Your task to perform on an android device: Open Youtube and go to the subscriptions tab Image 0: 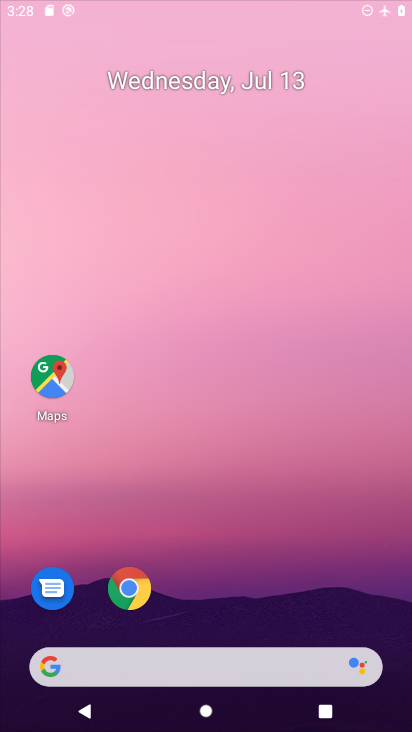
Step 0: drag from (221, 625) to (219, 167)
Your task to perform on an android device: Open Youtube and go to the subscriptions tab Image 1: 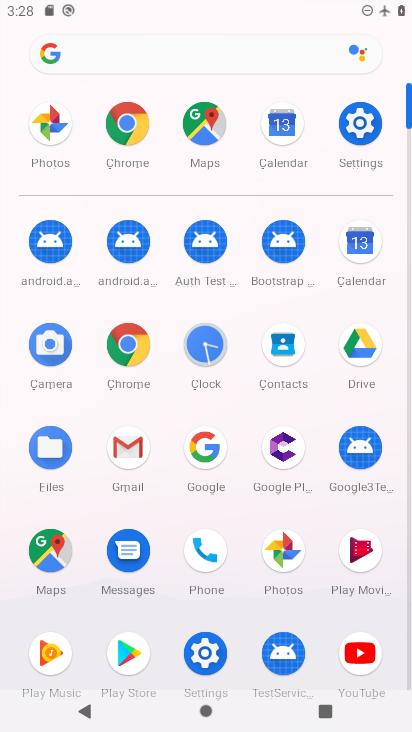
Step 1: click (379, 119)
Your task to perform on an android device: Open Youtube and go to the subscriptions tab Image 2: 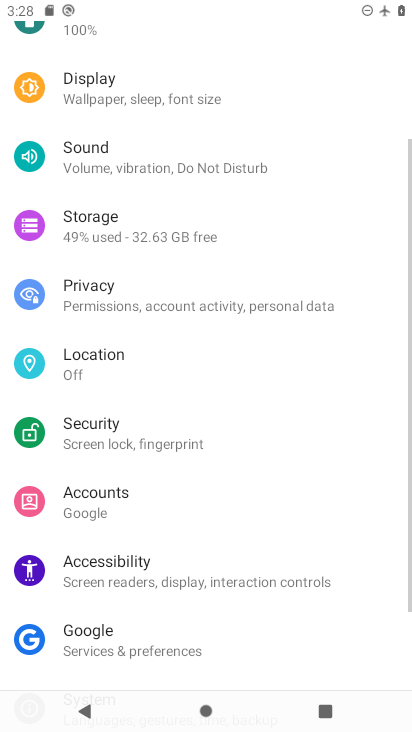
Step 2: press home button
Your task to perform on an android device: Open Youtube and go to the subscriptions tab Image 3: 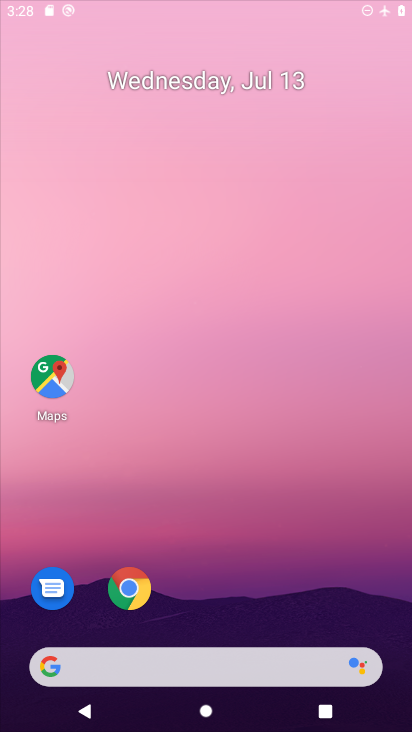
Step 3: press home button
Your task to perform on an android device: Open Youtube and go to the subscriptions tab Image 4: 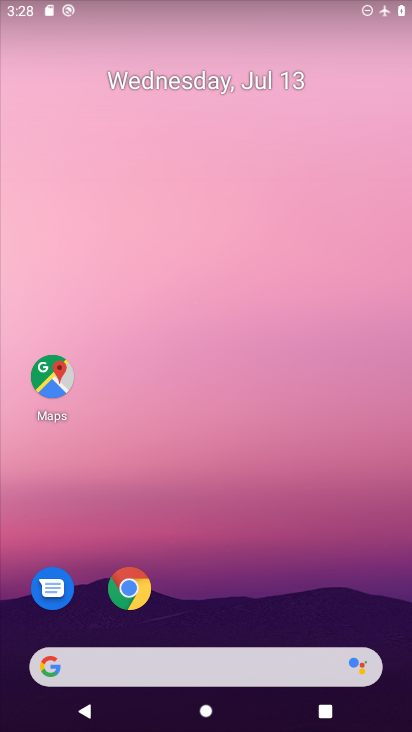
Step 4: drag from (205, 574) to (196, 30)
Your task to perform on an android device: Open Youtube and go to the subscriptions tab Image 5: 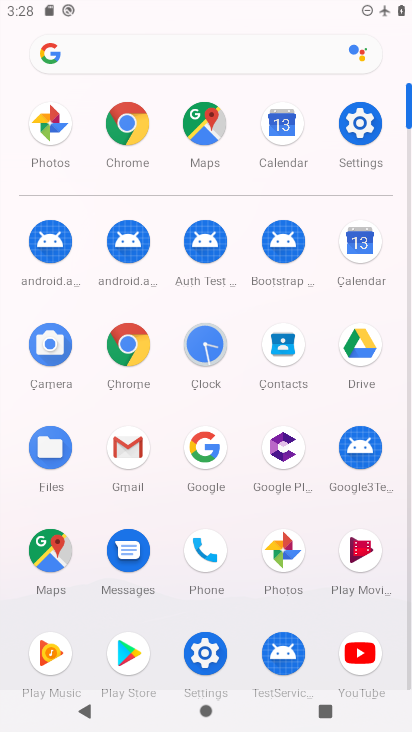
Step 5: click (359, 657)
Your task to perform on an android device: Open Youtube and go to the subscriptions tab Image 6: 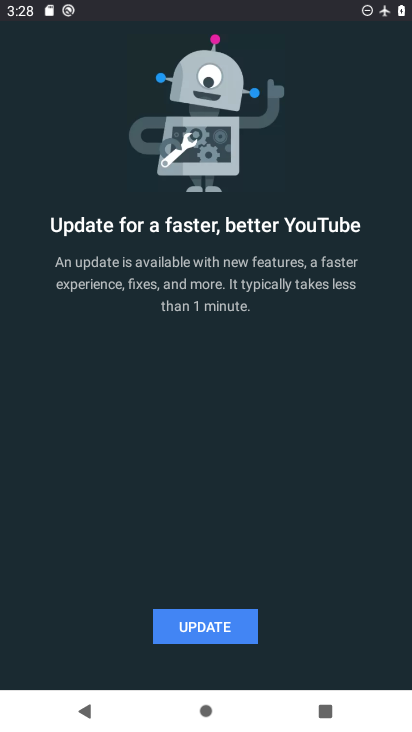
Step 6: click (152, 644)
Your task to perform on an android device: Open Youtube and go to the subscriptions tab Image 7: 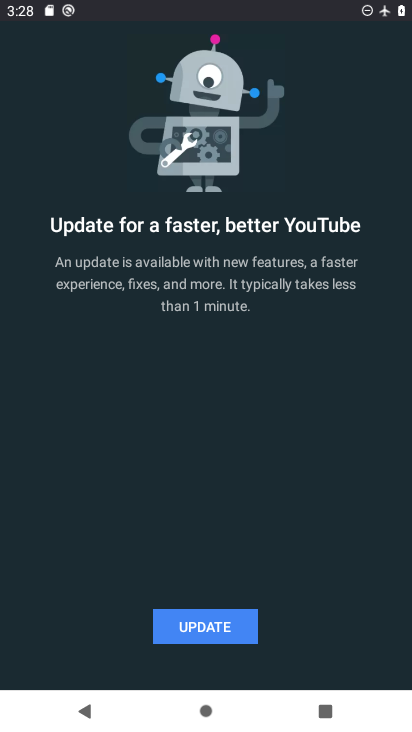
Step 7: click (203, 629)
Your task to perform on an android device: Open Youtube and go to the subscriptions tab Image 8: 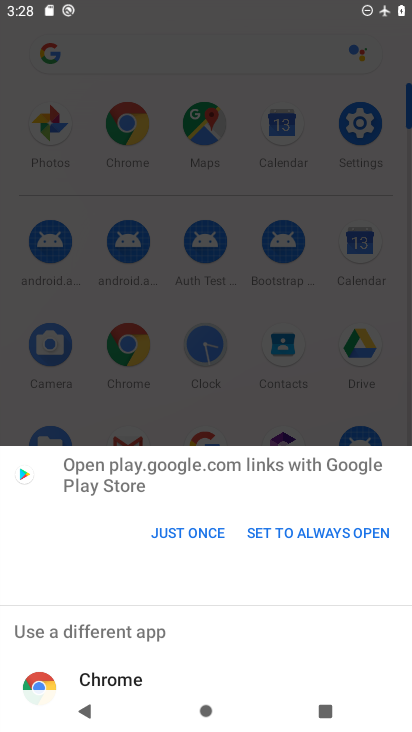
Step 8: click (216, 522)
Your task to perform on an android device: Open Youtube and go to the subscriptions tab Image 9: 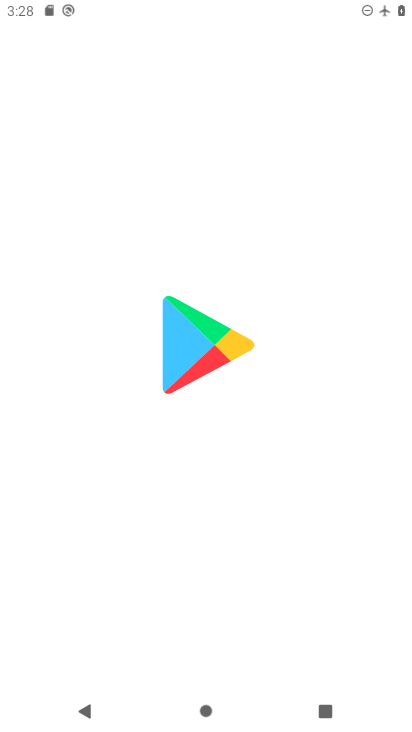
Step 9: task complete